Your task to perform on an android device: find photos in the google photos app Image 0: 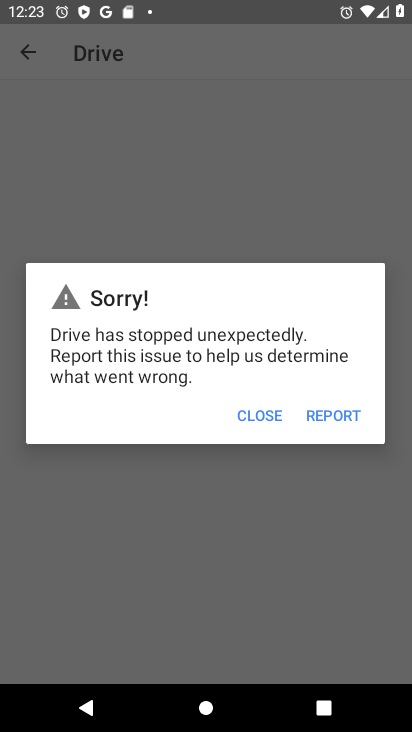
Step 0: press home button
Your task to perform on an android device: find photos in the google photos app Image 1: 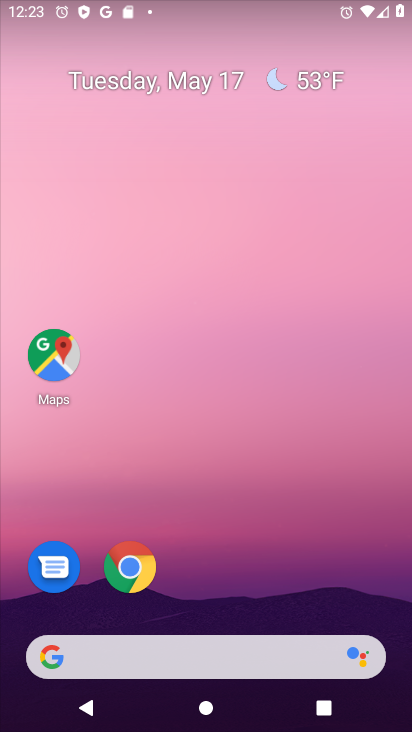
Step 1: drag from (290, 587) to (341, 255)
Your task to perform on an android device: find photos in the google photos app Image 2: 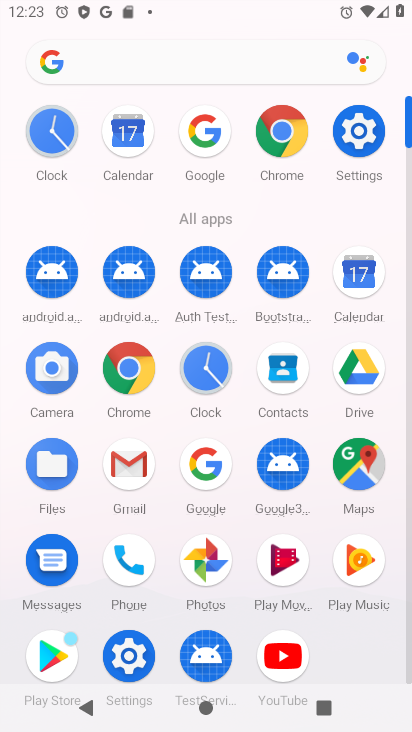
Step 2: click (219, 573)
Your task to perform on an android device: find photos in the google photos app Image 3: 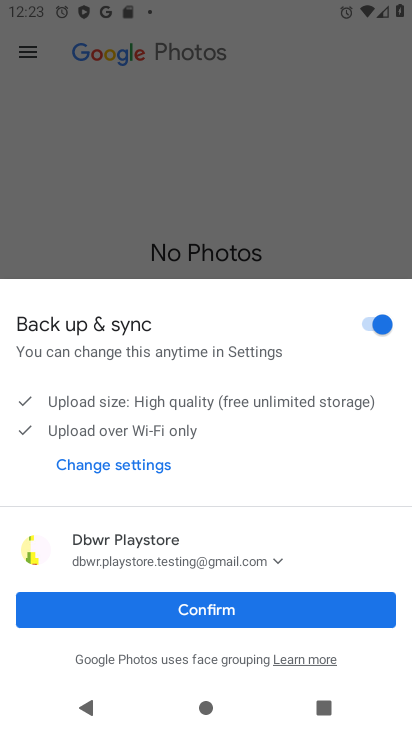
Step 3: click (218, 608)
Your task to perform on an android device: find photos in the google photos app Image 4: 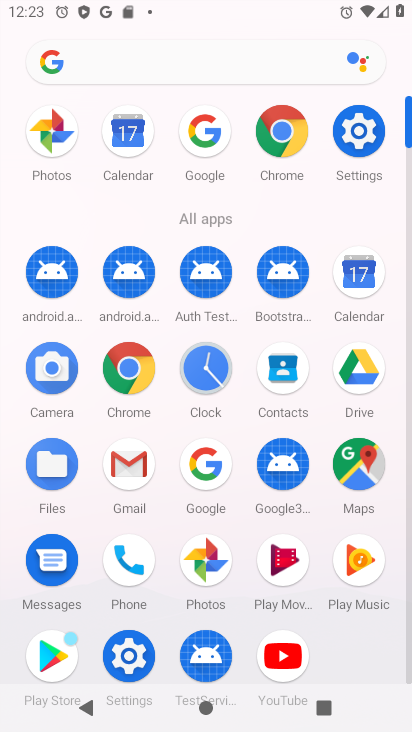
Step 4: click (212, 566)
Your task to perform on an android device: find photos in the google photos app Image 5: 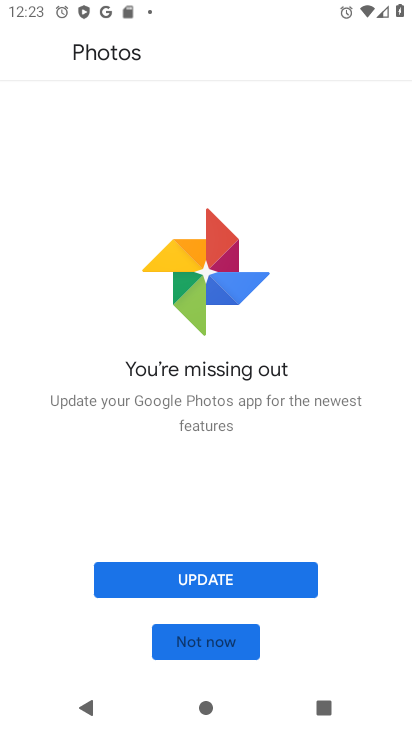
Step 5: click (201, 582)
Your task to perform on an android device: find photos in the google photos app Image 6: 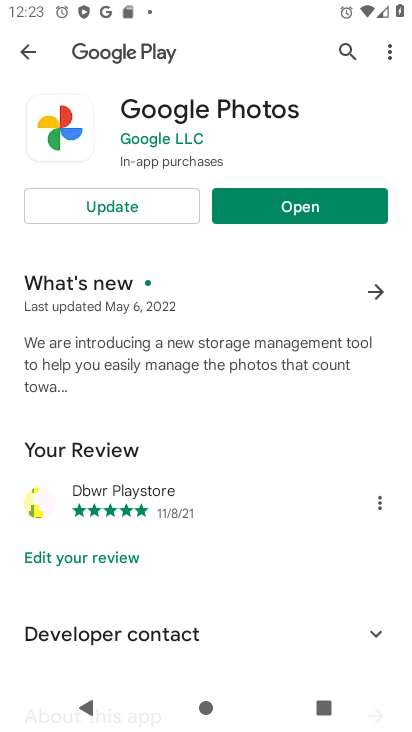
Step 6: click (129, 206)
Your task to perform on an android device: find photos in the google photos app Image 7: 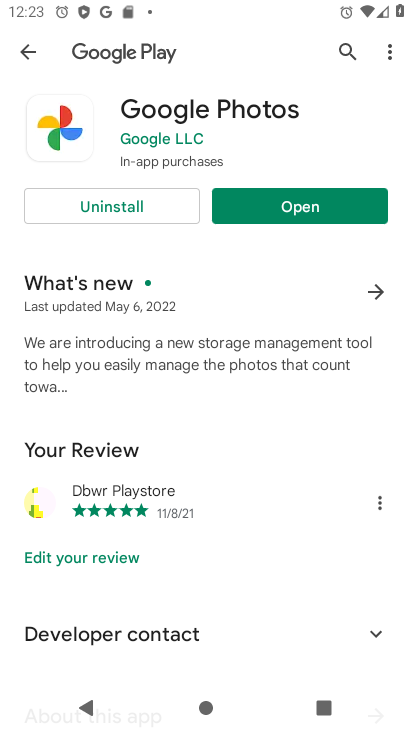
Step 7: click (255, 196)
Your task to perform on an android device: find photos in the google photos app Image 8: 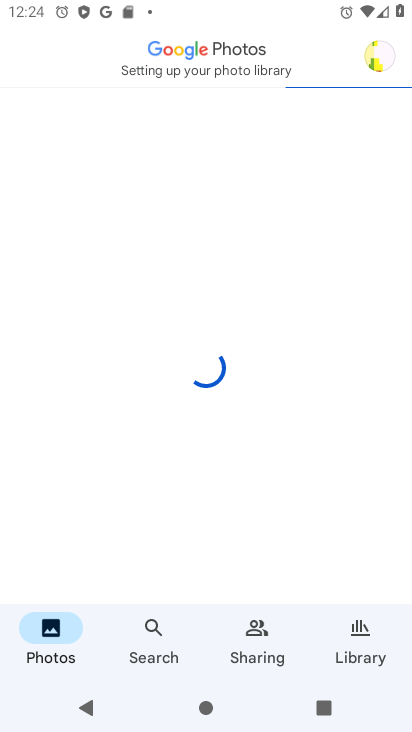
Step 8: task complete